Your task to perform on an android device: turn pop-ups on in chrome Image 0: 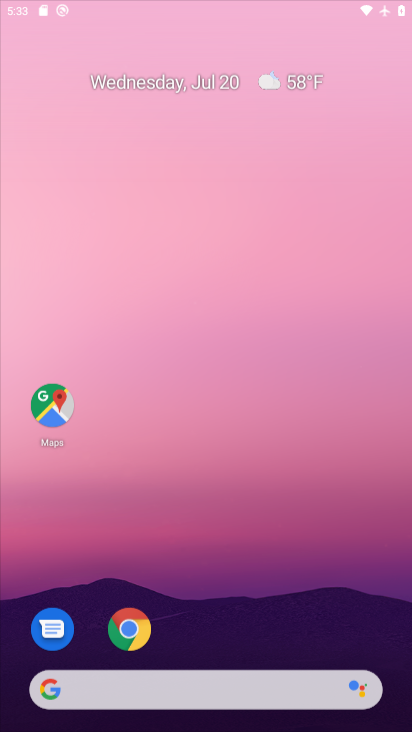
Step 0: press home button
Your task to perform on an android device: turn pop-ups on in chrome Image 1: 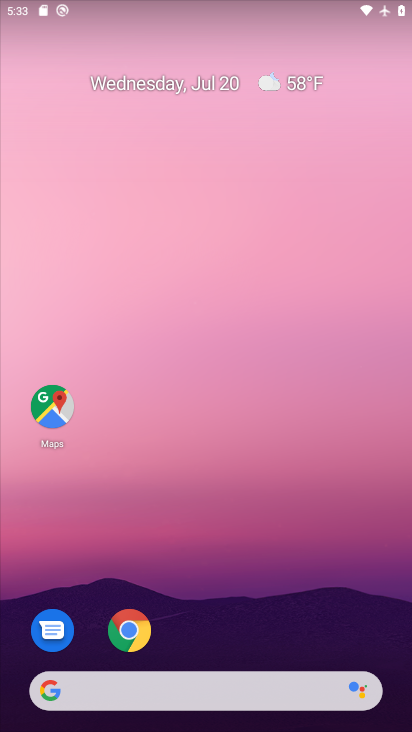
Step 1: drag from (215, 653) to (273, 22)
Your task to perform on an android device: turn pop-ups on in chrome Image 2: 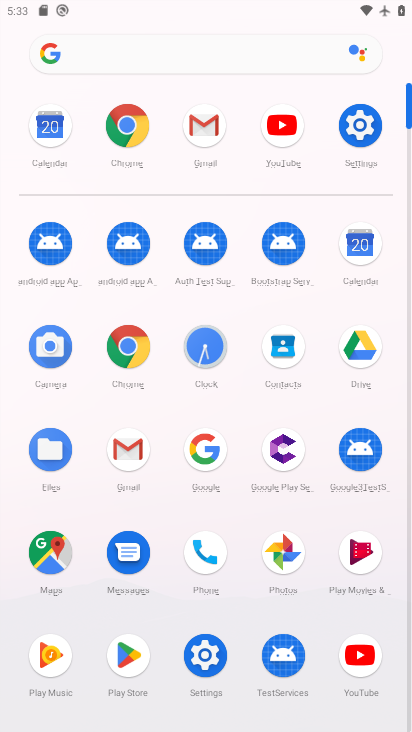
Step 2: click (128, 126)
Your task to perform on an android device: turn pop-ups on in chrome Image 3: 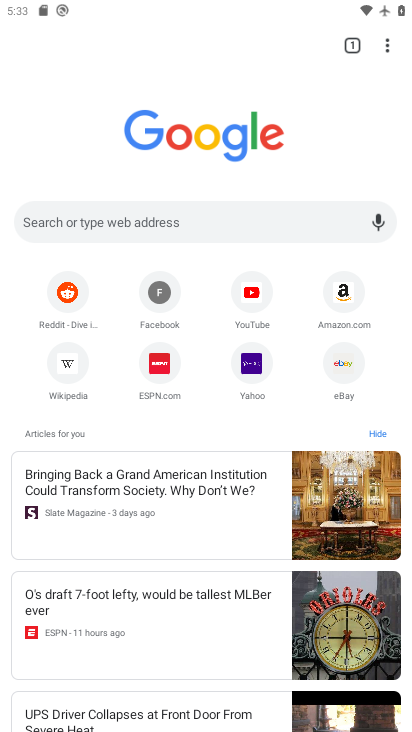
Step 3: drag from (389, 49) to (232, 385)
Your task to perform on an android device: turn pop-ups on in chrome Image 4: 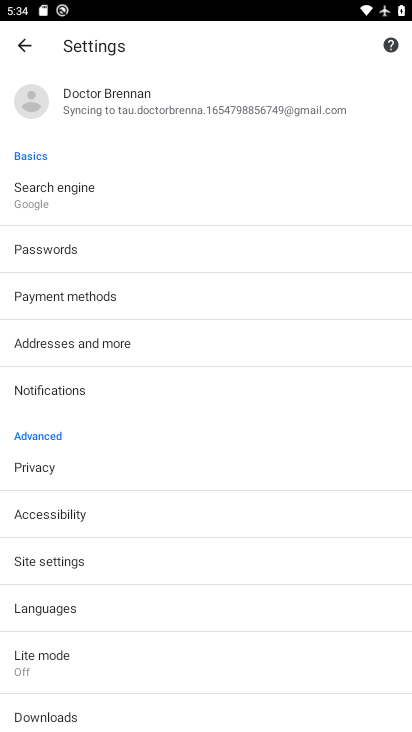
Step 4: click (45, 562)
Your task to perform on an android device: turn pop-ups on in chrome Image 5: 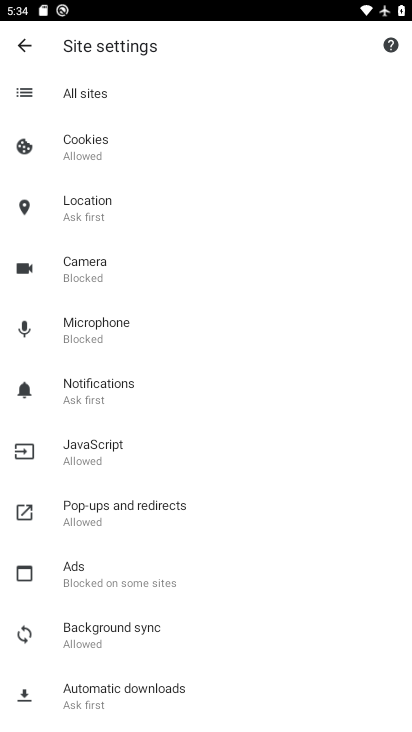
Step 5: click (143, 508)
Your task to perform on an android device: turn pop-ups on in chrome Image 6: 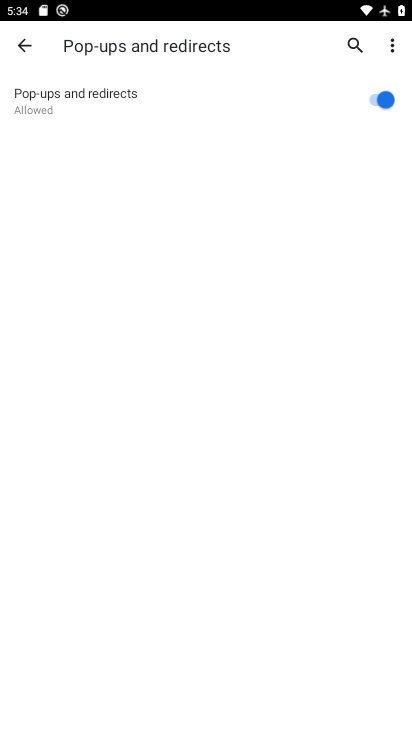
Step 6: task complete